Your task to perform on an android device: Go to Amazon Image 0: 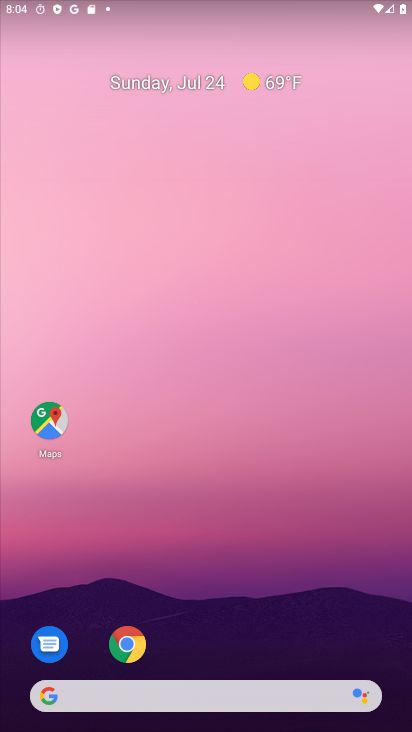
Step 0: click (129, 644)
Your task to perform on an android device: Go to Amazon Image 1: 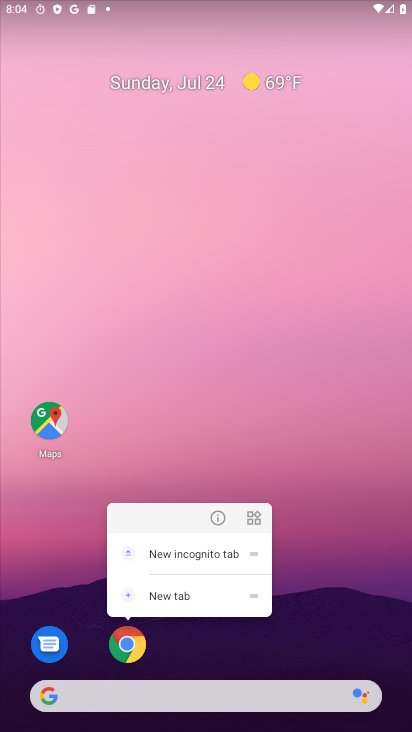
Step 1: click (129, 644)
Your task to perform on an android device: Go to Amazon Image 2: 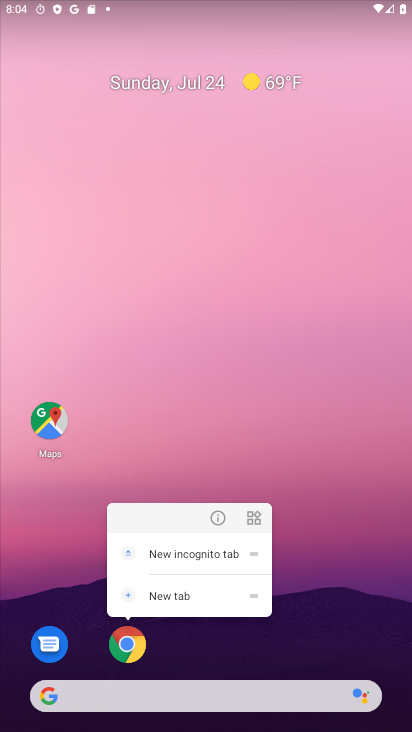
Step 2: click (129, 644)
Your task to perform on an android device: Go to Amazon Image 3: 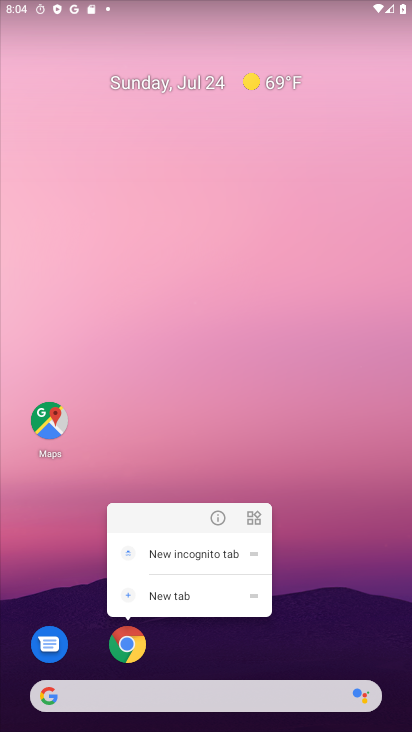
Step 3: click (127, 641)
Your task to perform on an android device: Go to Amazon Image 4: 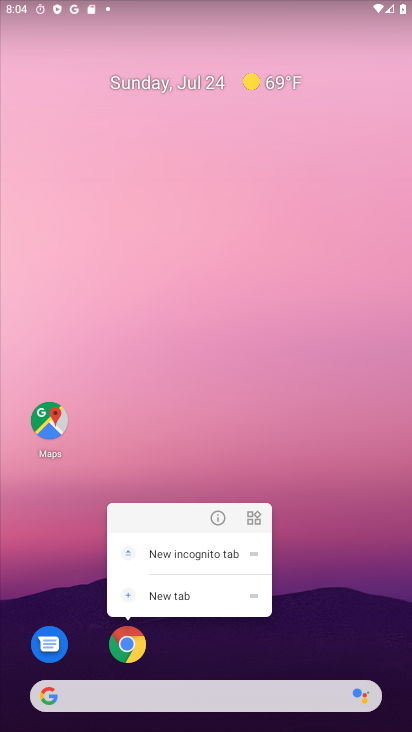
Step 4: click (121, 650)
Your task to perform on an android device: Go to Amazon Image 5: 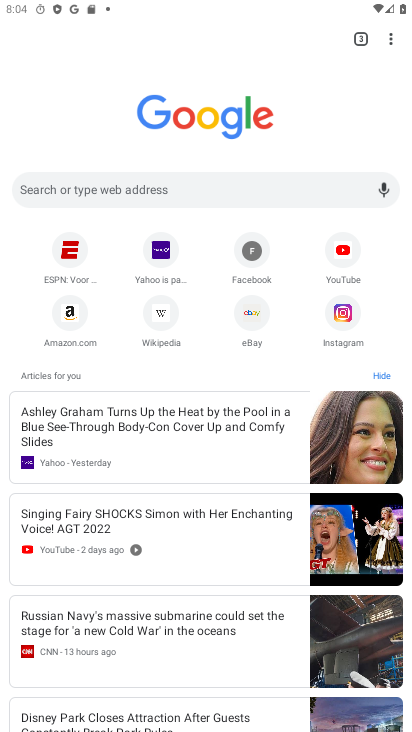
Step 5: click (55, 319)
Your task to perform on an android device: Go to Amazon Image 6: 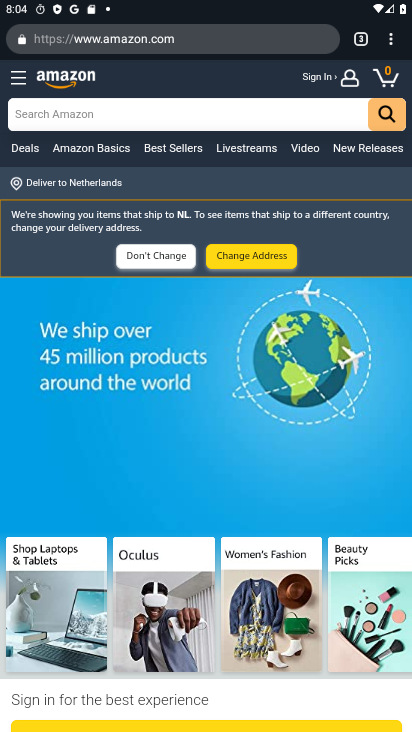
Step 6: task complete